Your task to perform on an android device: Go to ESPN.com Image 0: 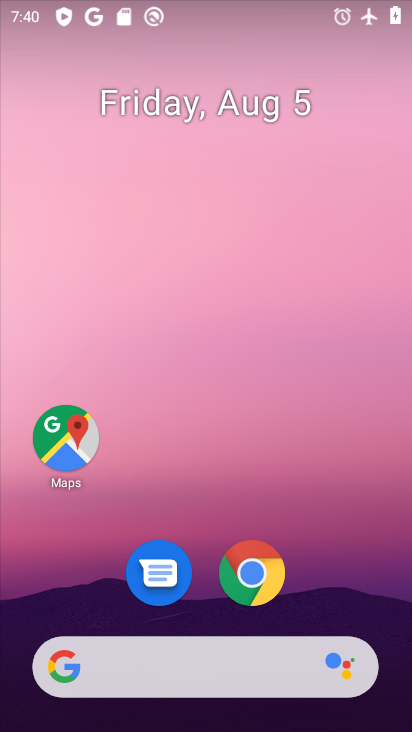
Step 0: click (233, 672)
Your task to perform on an android device: Go to ESPN.com Image 1: 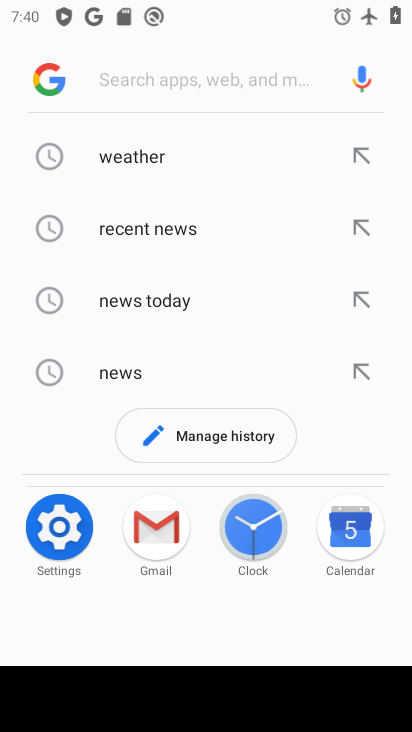
Step 1: type "espn.com"
Your task to perform on an android device: Go to ESPN.com Image 2: 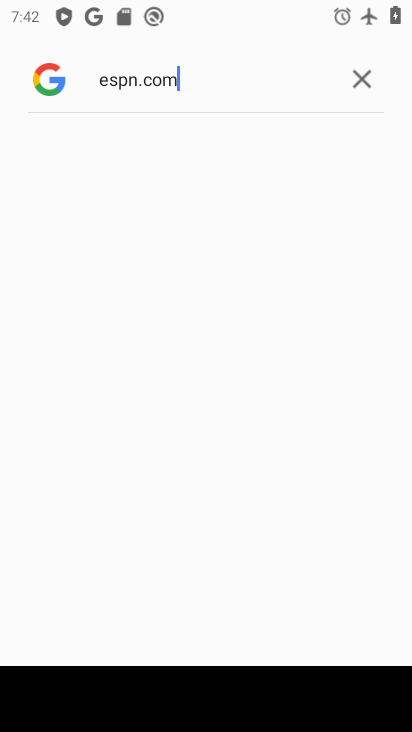
Step 2: task complete